Your task to perform on an android device: find photos in the google photos app Image 0: 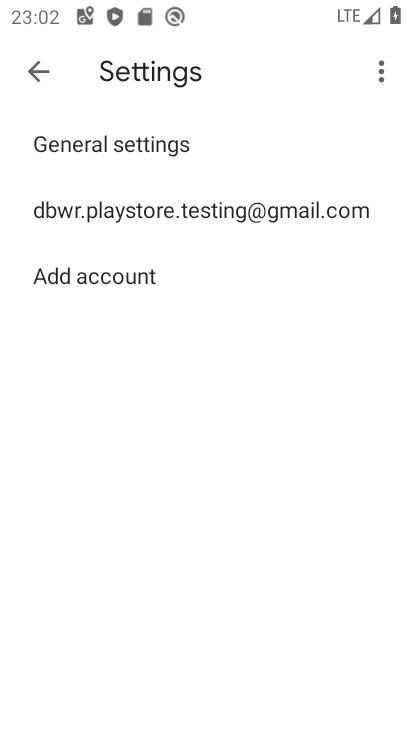
Step 0: press home button
Your task to perform on an android device: find photos in the google photos app Image 1: 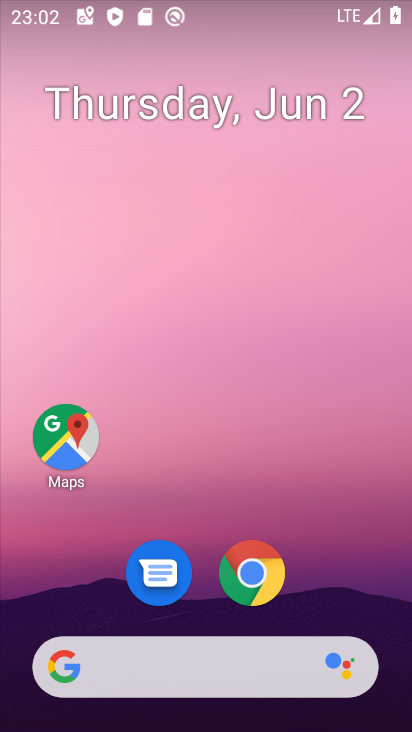
Step 1: drag from (312, 577) to (274, 28)
Your task to perform on an android device: find photos in the google photos app Image 2: 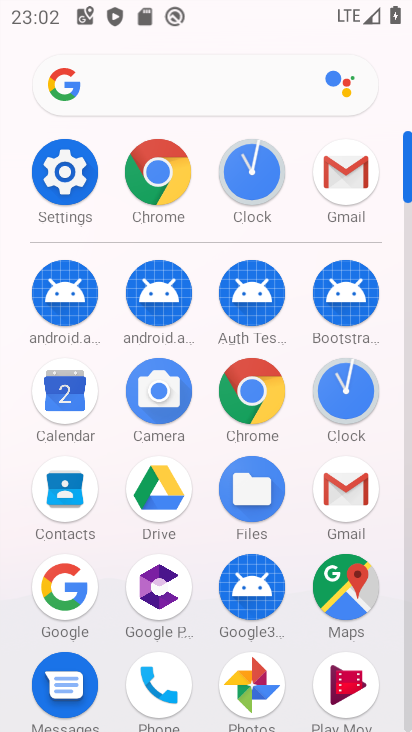
Step 2: click (251, 672)
Your task to perform on an android device: find photos in the google photos app Image 3: 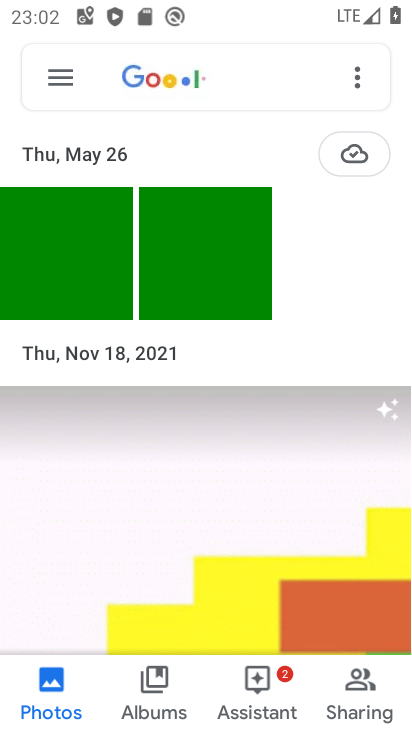
Step 3: task complete